Your task to perform on an android device: Go to network settings Image 0: 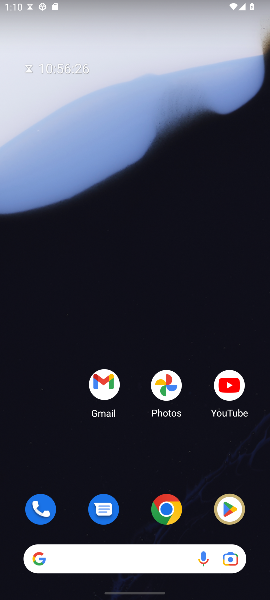
Step 0: press home button
Your task to perform on an android device: Go to network settings Image 1: 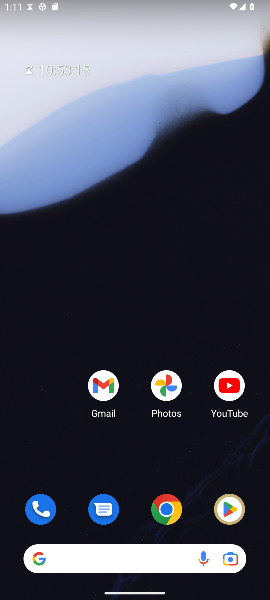
Step 1: drag from (145, 523) to (245, 152)
Your task to perform on an android device: Go to network settings Image 2: 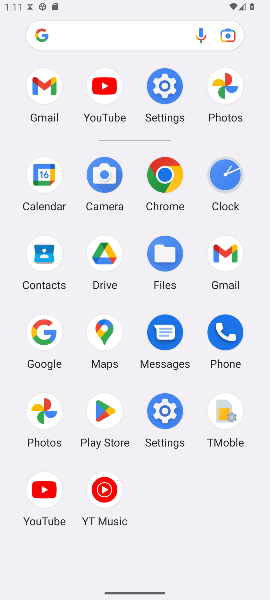
Step 2: click (167, 93)
Your task to perform on an android device: Go to network settings Image 3: 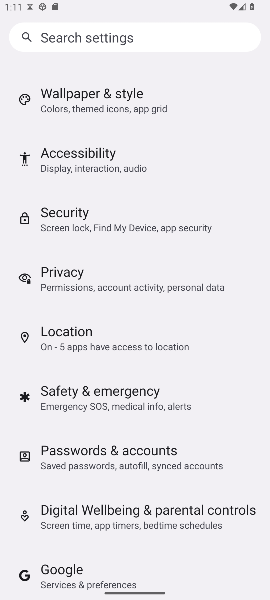
Step 3: drag from (194, 131) to (162, 582)
Your task to perform on an android device: Go to network settings Image 4: 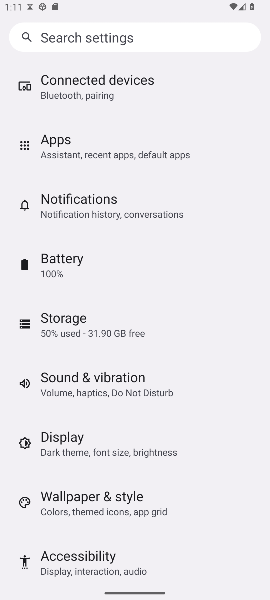
Step 4: drag from (204, 126) to (99, 584)
Your task to perform on an android device: Go to network settings Image 5: 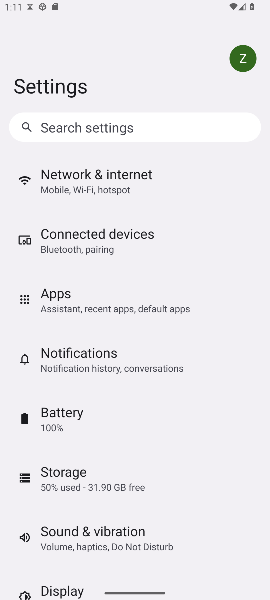
Step 5: click (90, 184)
Your task to perform on an android device: Go to network settings Image 6: 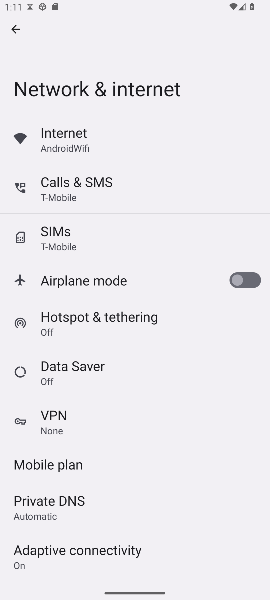
Step 6: task complete